Your task to perform on an android device: uninstall "LiveIn - Share Your Moment" Image 0: 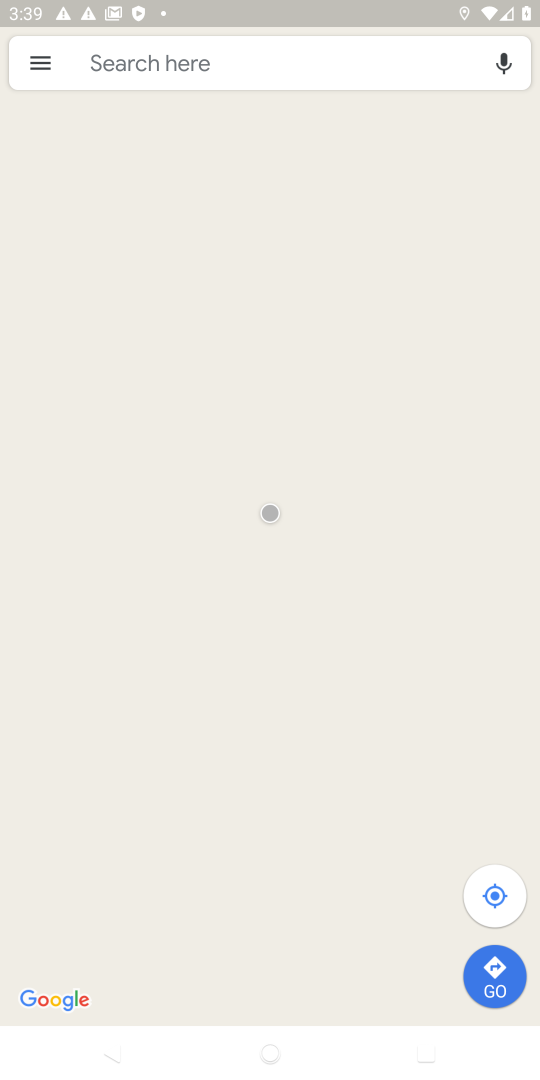
Step 0: press home button
Your task to perform on an android device: uninstall "LiveIn - Share Your Moment" Image 1: 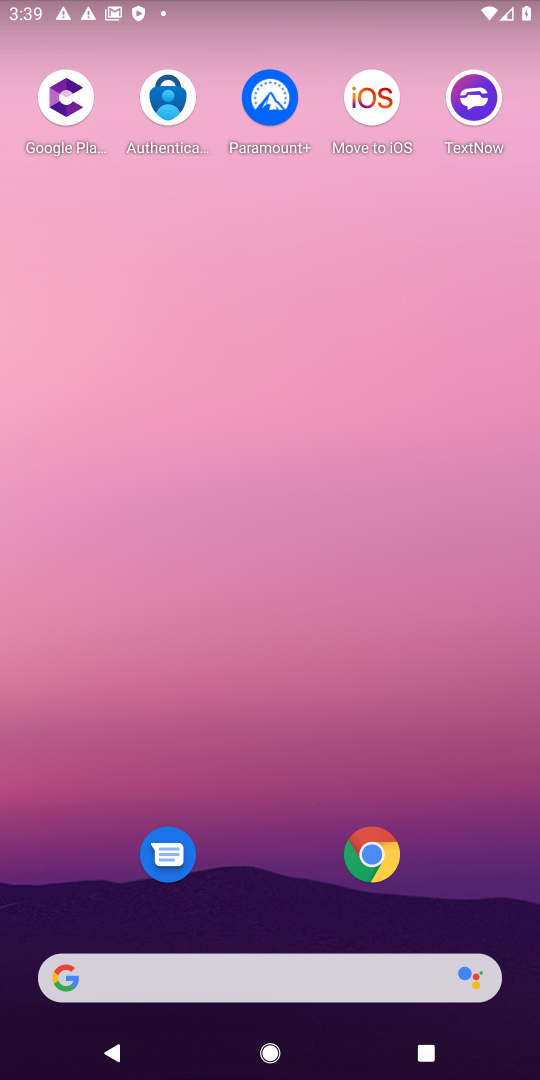
Step 1: drag from (281, 694) to (281, 157)
Your task to perform on an android device: uninstall "LiveIn - Share Your Moment" Image 2: 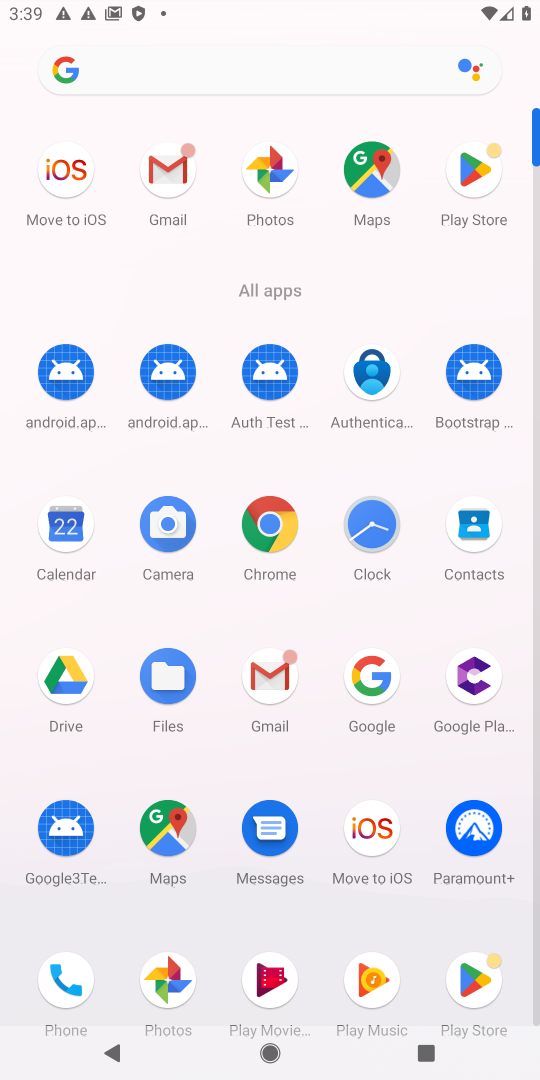
Step 2: click (474, 169)
Your task to perform on an android device: uninstall "LiveIn - Share Your Moment" Image 3: 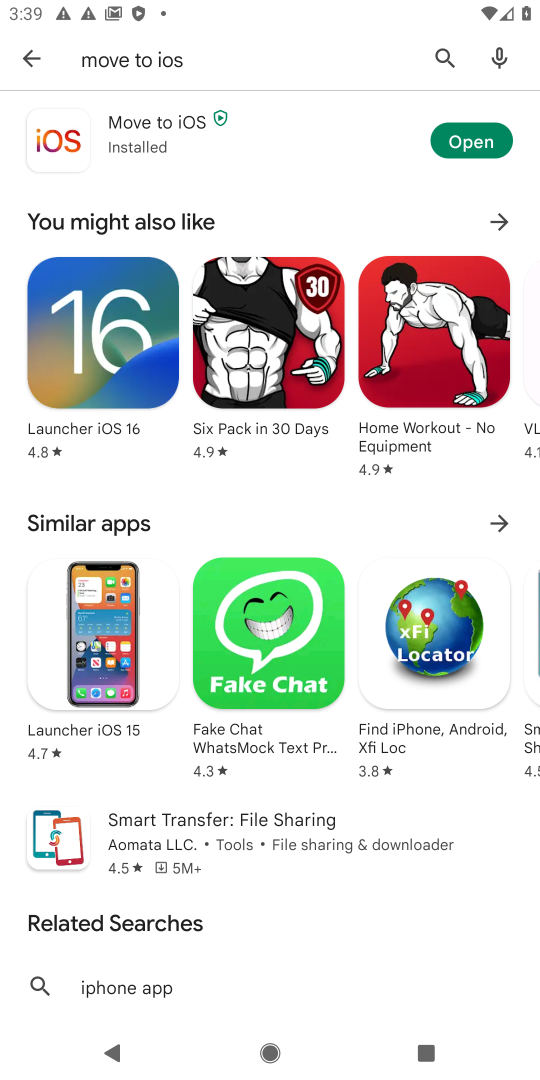
Step 3: click (444, 49)
Your task to perform on an android device: uninstall "LiveIn - Share Your Moment" Image 4: 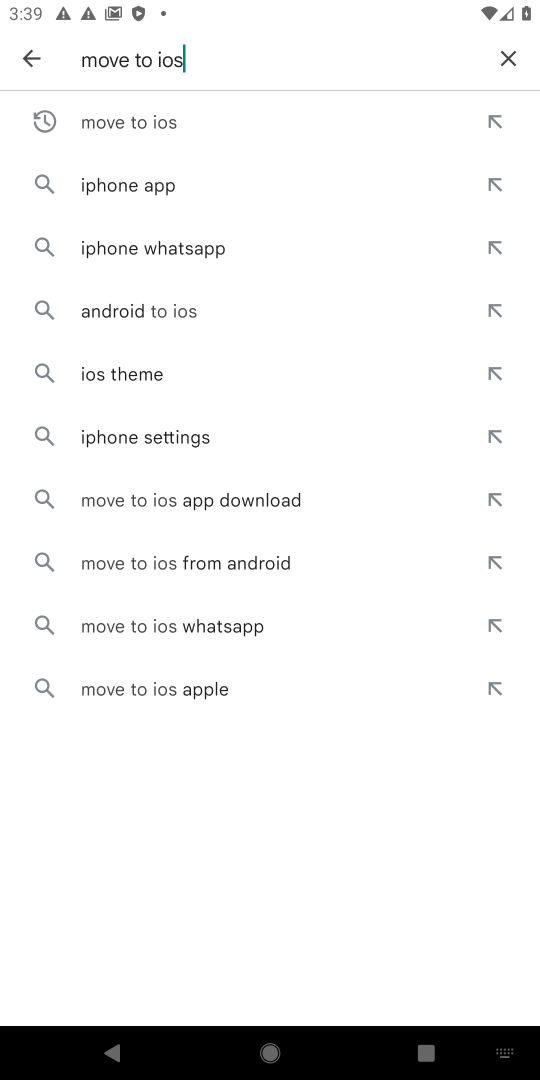
Step 4: click (507, 54)
Your task to perform on an android device: uninstall "LiveIn - Share Your Moment" Image 5: 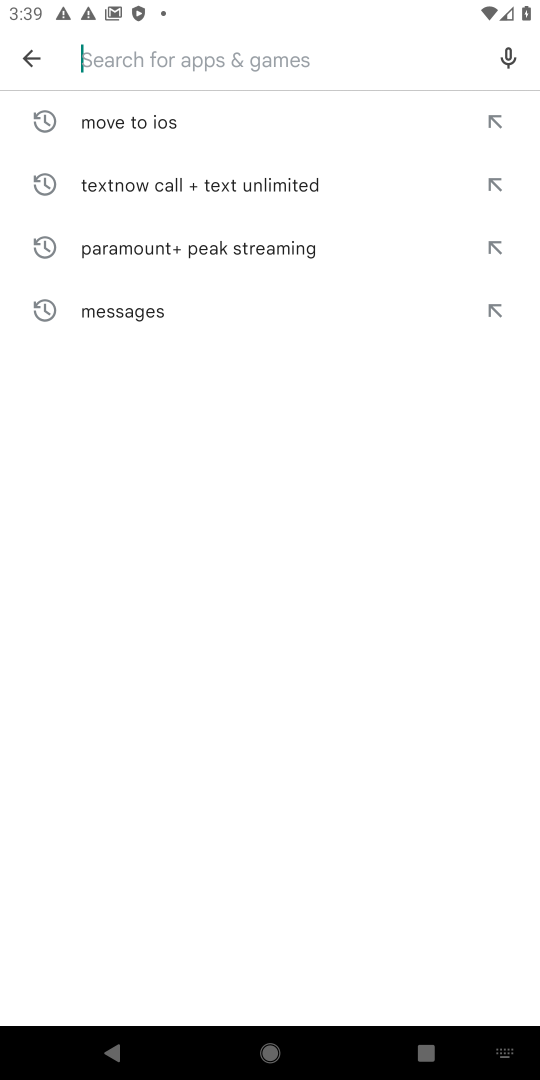
Step 5: type "LiveIn - Share Your Moment"
Your task to perform on an android device: uninstall "LiveIn - Share Your Moment" Image 6: 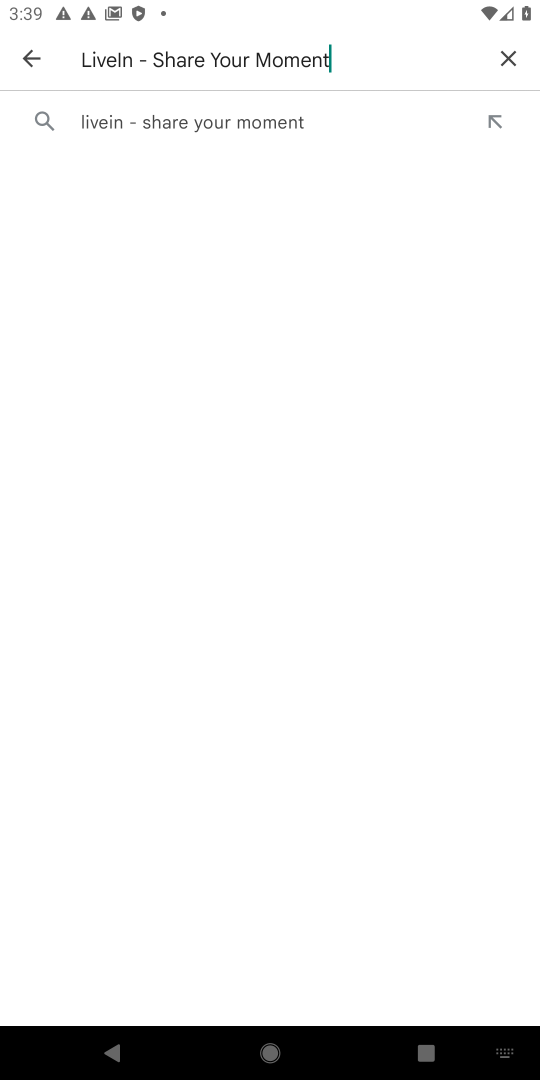
Step 6: click (213, 123)
Your task to perform on an android device: uninstall "LiveIn - Share Your Moment" Image 7: 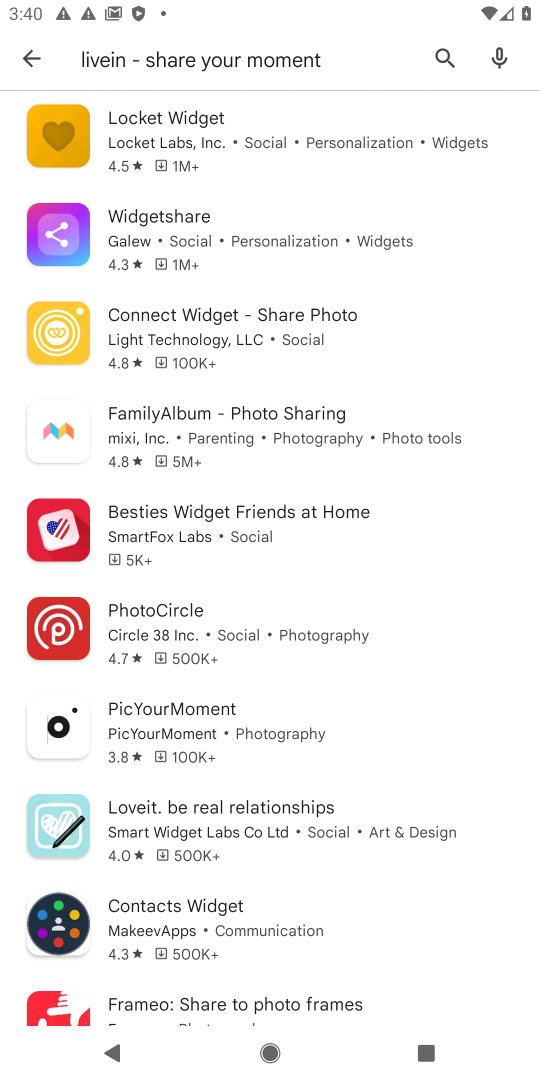
Step 7: task complete